Your task to perform on an android device: change timer sound Image 0: 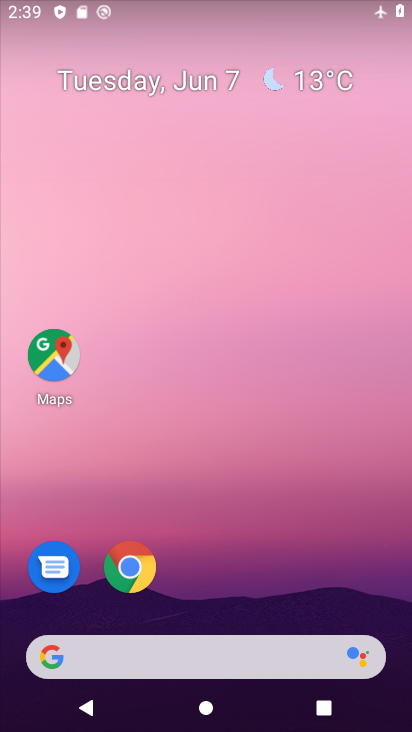
Step 0: press home button
Your task to perform on an android device: change timer sound Image 1: 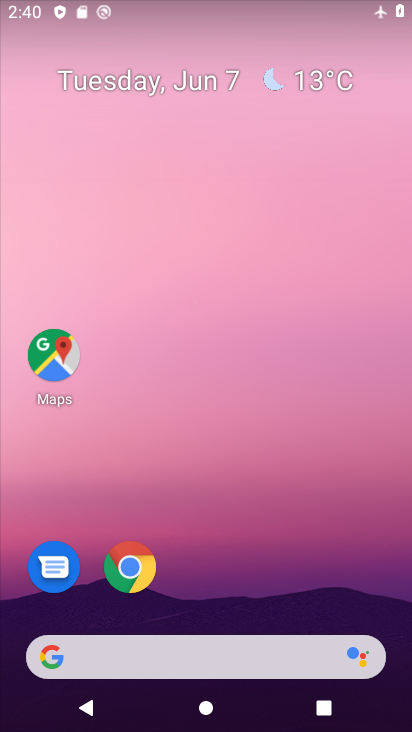
Step 1: drag from (217, 530) to (209, 61)
Your task to perform on an android device: change timer sound Image 2: 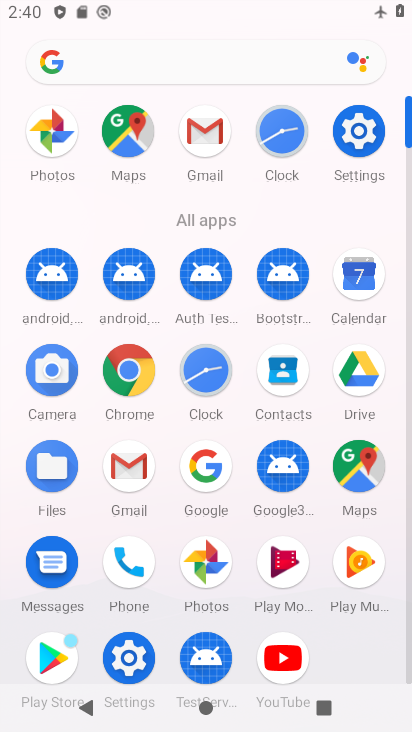
Step 2: click (206, 370)
Your task to perform on an android device: change timer sound Image 3: 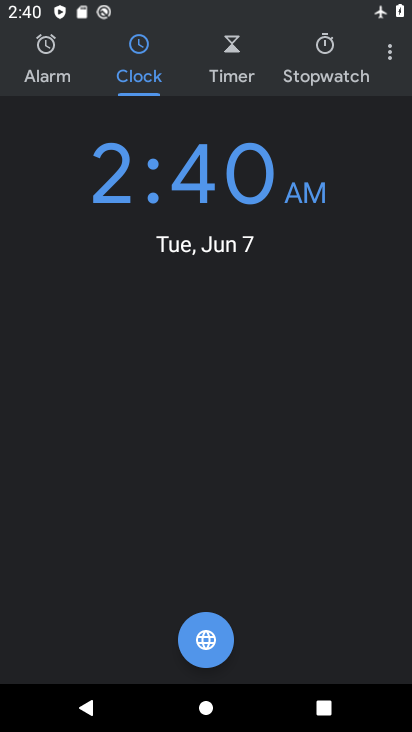
Step 3: click (385, 54)
Your task to perform on an android device: change timer sound Image 4: 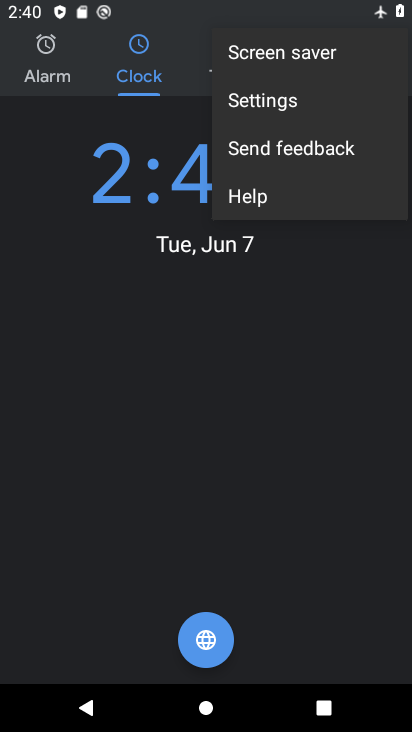
Step 4: click (256, 99)
Your task to perform on an android device: change timer sound Image 5: 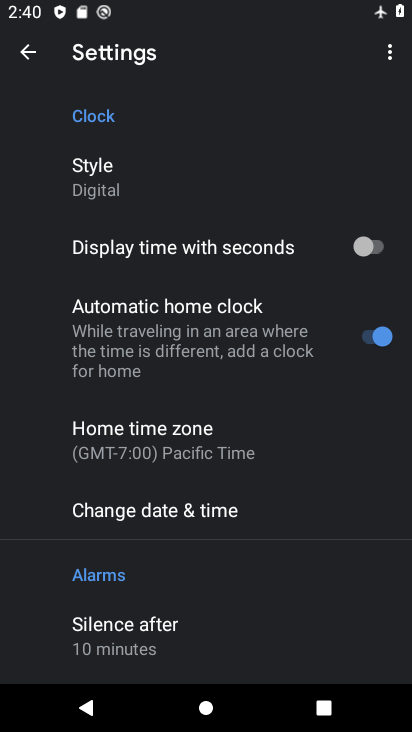
Step 5: drag from (319, 550) to (355, 119)
Your task to perform on an android device: change timer sound Image 6: 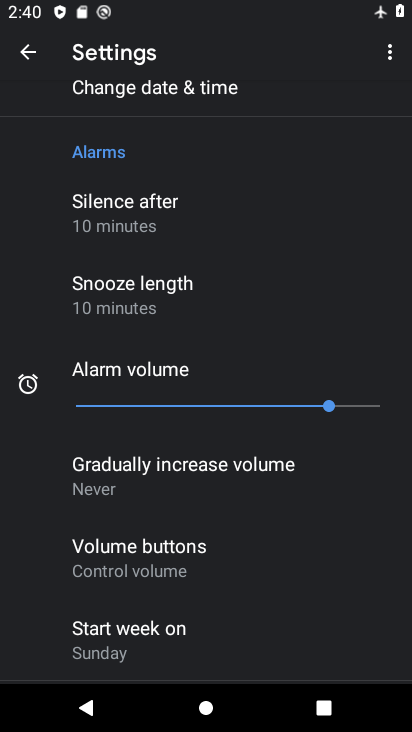
Step 6: drag from (251, 503) to (286, 305)
Your task to perform on an android device: change timer sound Image 7: 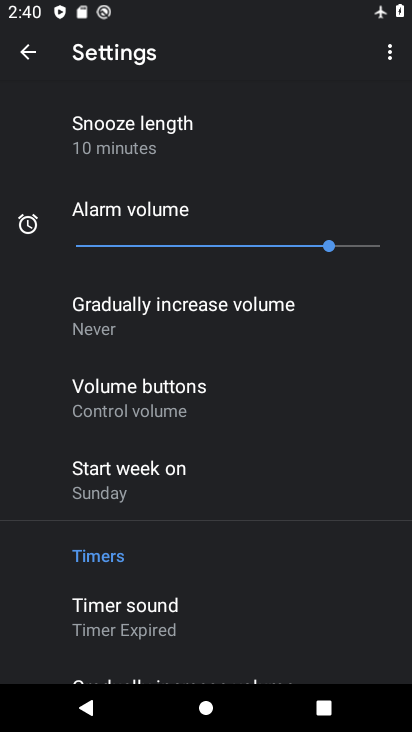
Step 7: click (127, 628)
Your task to perform on an android device: change timer sound Image 8: 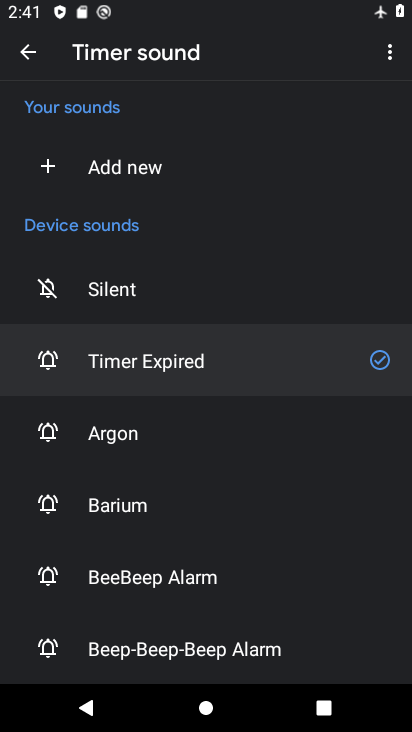
Step 8: click (139, 515)
Your task to perform on an android device: change timer sound Image 9: 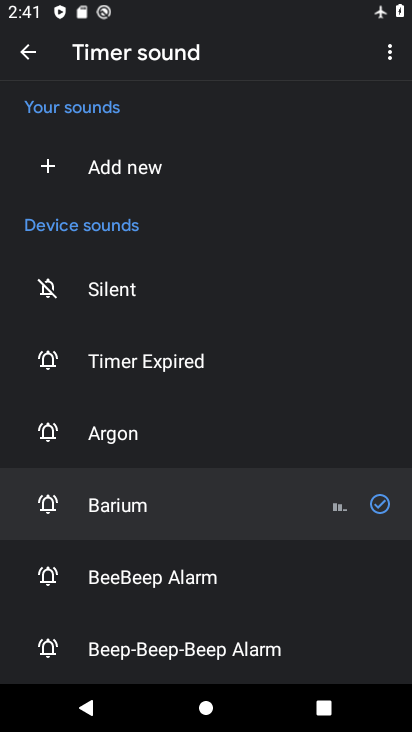
Step 9: task complete